Your task to perform on an android device: check android version Image 0: 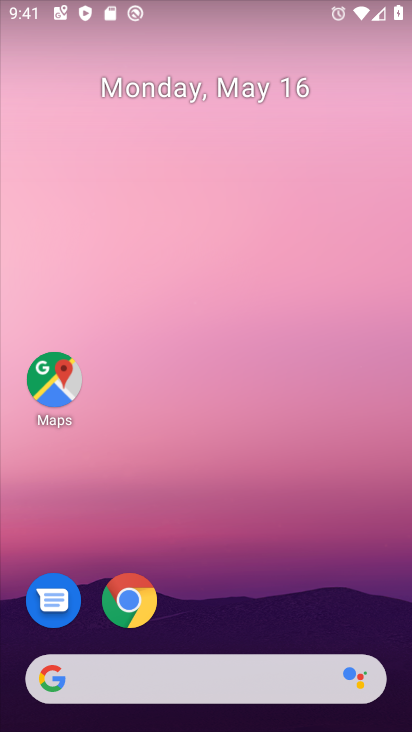
Step 0: click (252, 194)
Your task to perform on an android device: check android version Image 1: 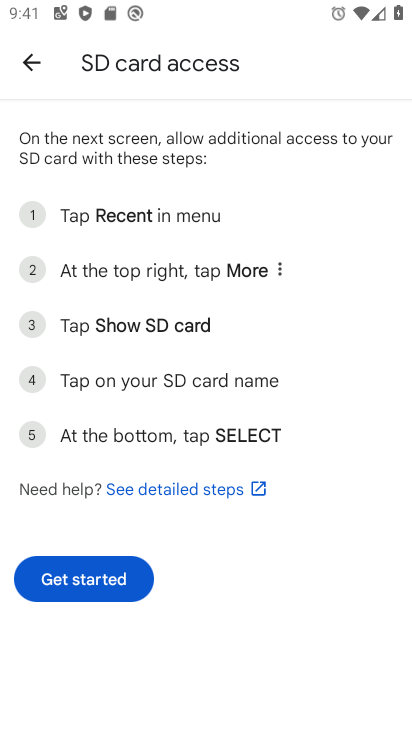
Step 1: press home button
Your task to perform on an android device: check android version Image 2: 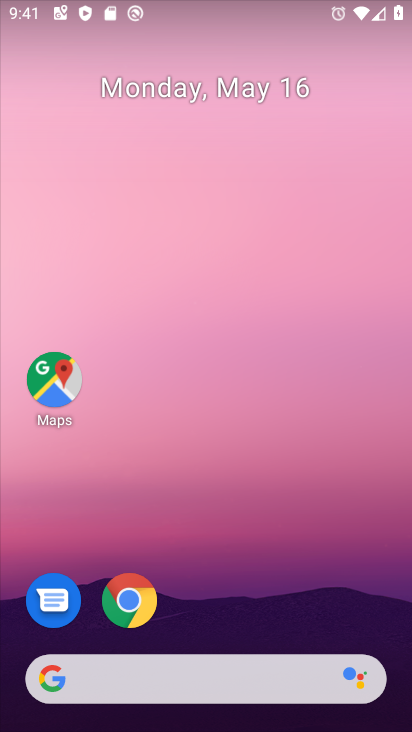
Step 2: drag from (212, 621) to (236, 223)
Your task to perform on an android device: check android version Image 3: 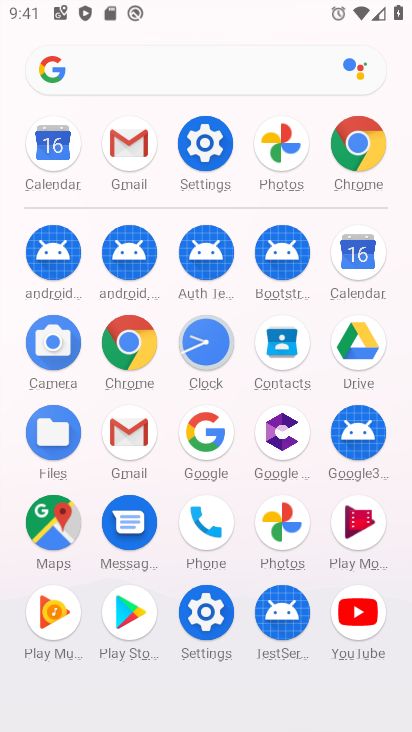
Step 3: click (202, 150)
Your task to perform on an android device: check android version Image 4: 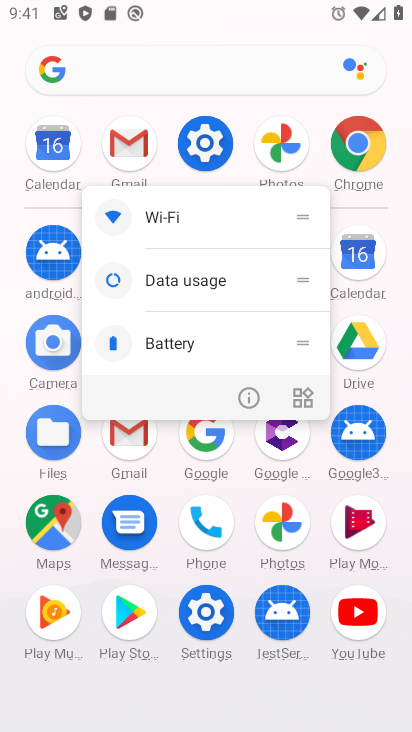
Step 4: click (248, 393)
Your task to perform on an android device: check android version Image 5: 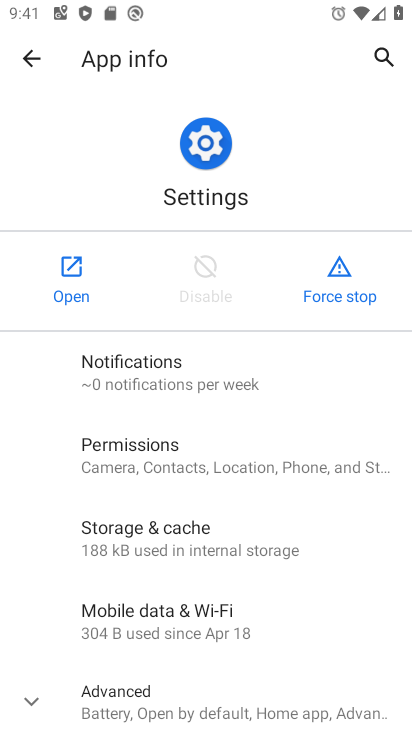
Step 5: click (60, 272)
Your task to perform on an android device: check android version Image 6: 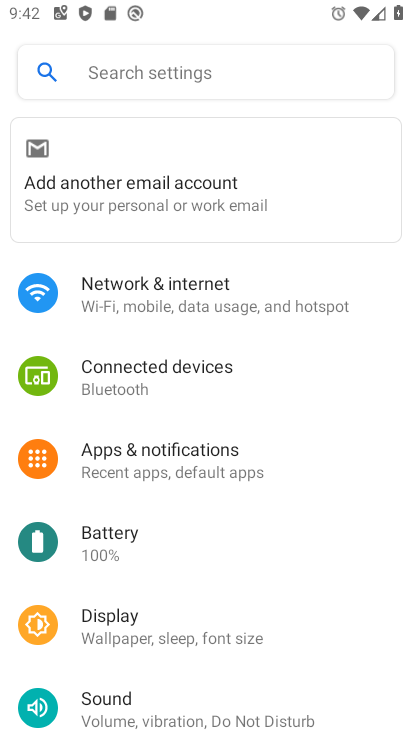
Step 6: drag from (219, 665) to (291, 159)
Your task to perform on an android device: check android version Image 7: 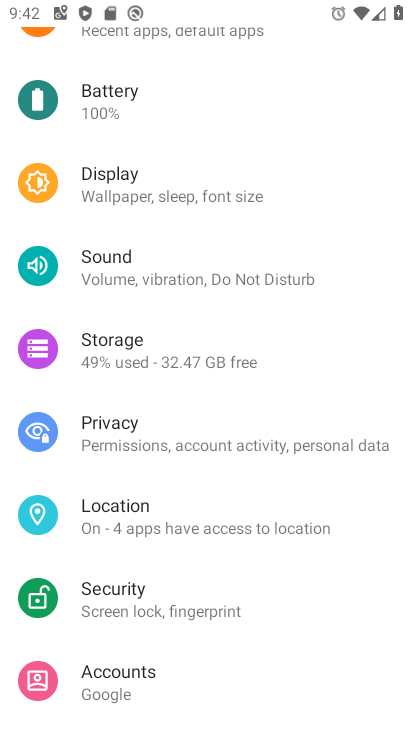
Step 7: drag from (213, 664) to (300, 4)
Your task to perform on an android device: check android version Image 8: 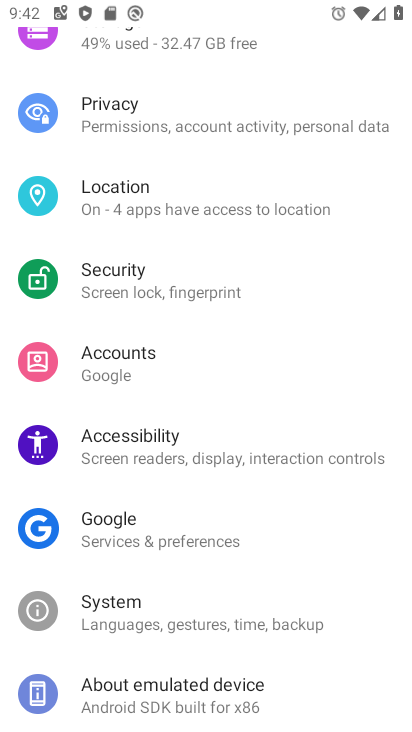
Step 8: click (193, 695)
Your task to perform on an android device: check android version Image 9: 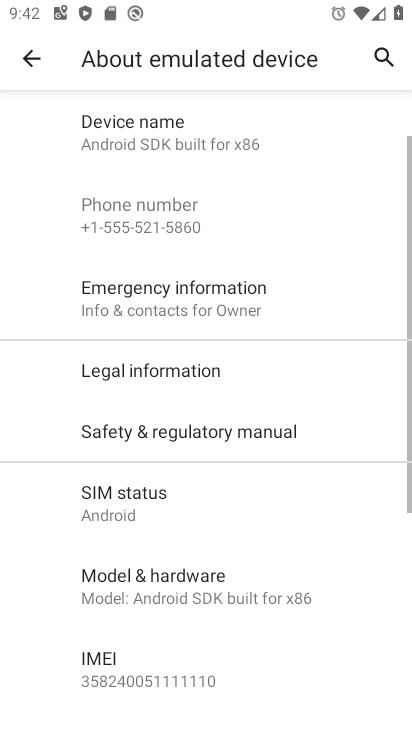
Step 9: drag from (245, 510) to (235, 206)
Your task to perform on an android device: check android version Image 10: 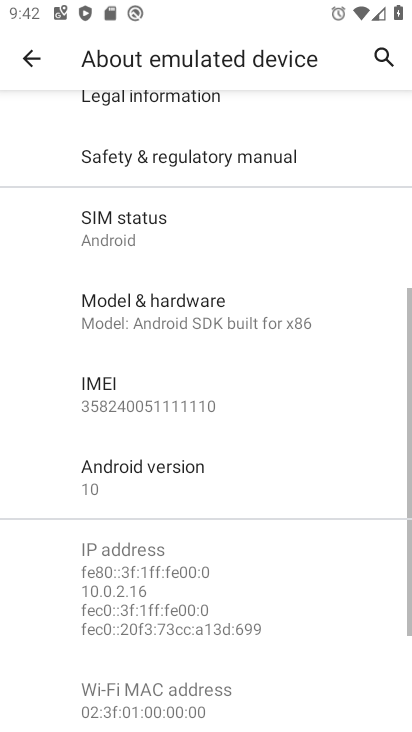
Step 10: drag from (176, 286) to (289, 731)
Your task to perform on an android device: check android version Image 11: 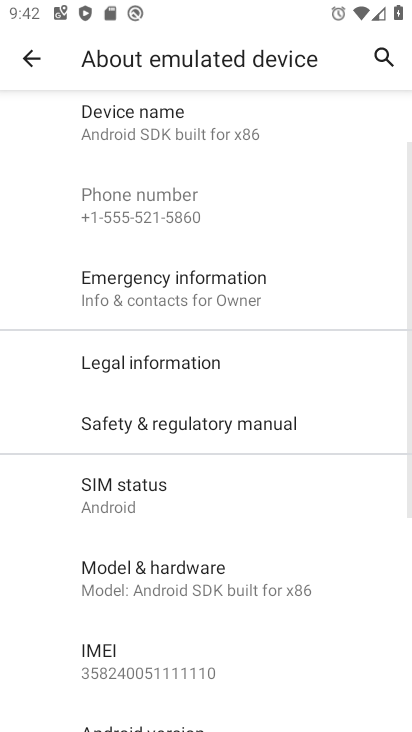
Step 11: drag from (272, 505) to (285, 284)
Your task to perform on an android device: check android version Image 12: 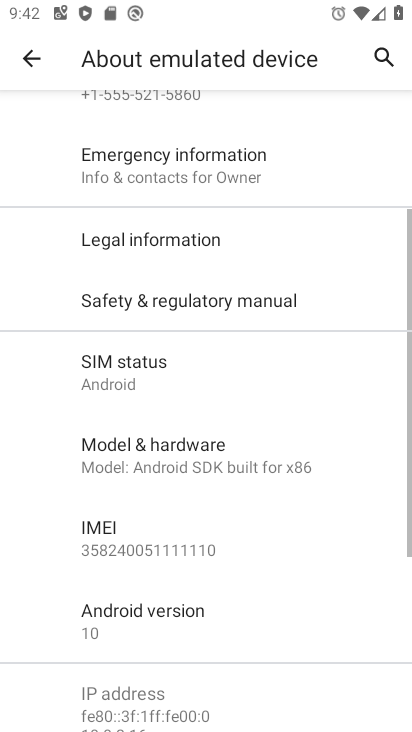
Step 12: click (160, 627)
Your task to perform on an android device: check android version Image 13: 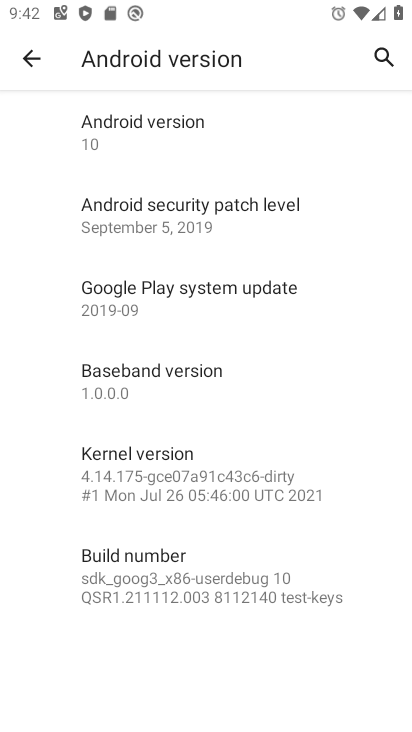
Step 13: task complete